Your task to perform on an android device: toggle sleep mode Image 0: 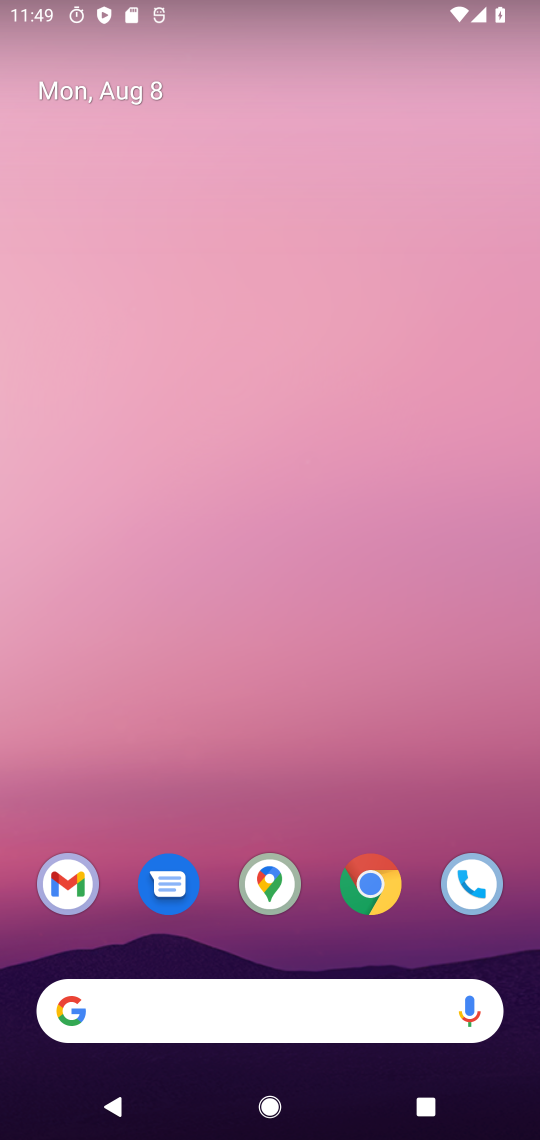
Step 0: drag from (229, 903) to (187, 230)
Your task to perform on an android device: toggle sleep mode Image 1: 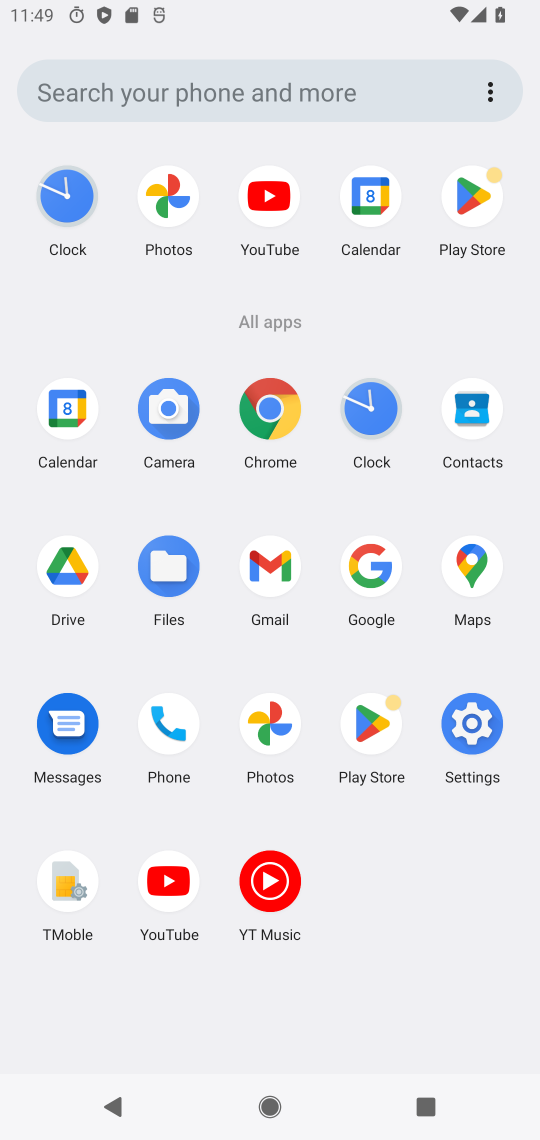
Step 1: click (480, 718)
Your task to perform on an android device: toggle sleep mode Image 2: 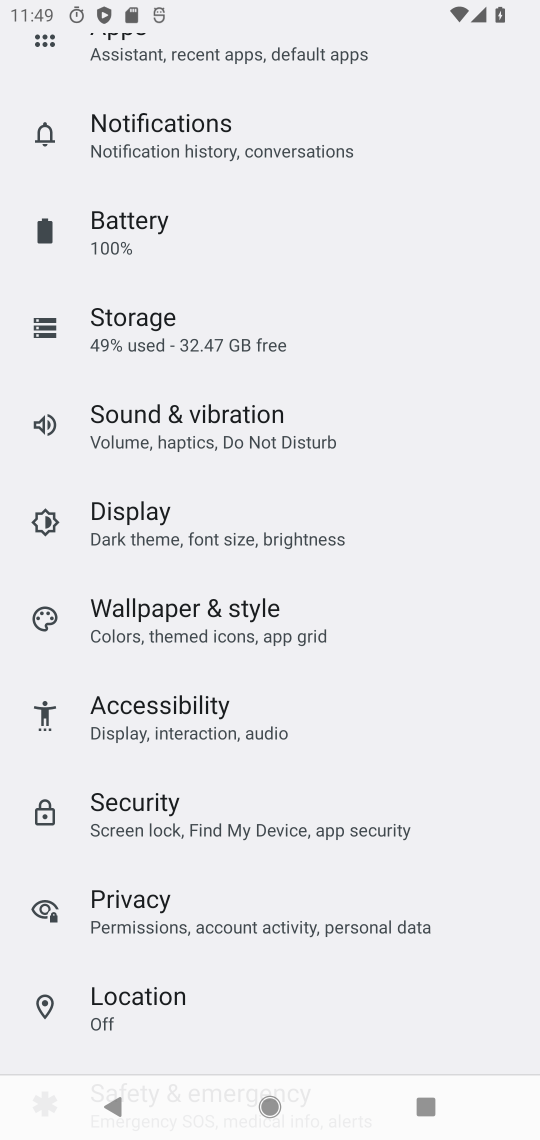
Step 2: task complete